Your task to perform on an android device: What's the weather going to be tomorrow? Image 0: 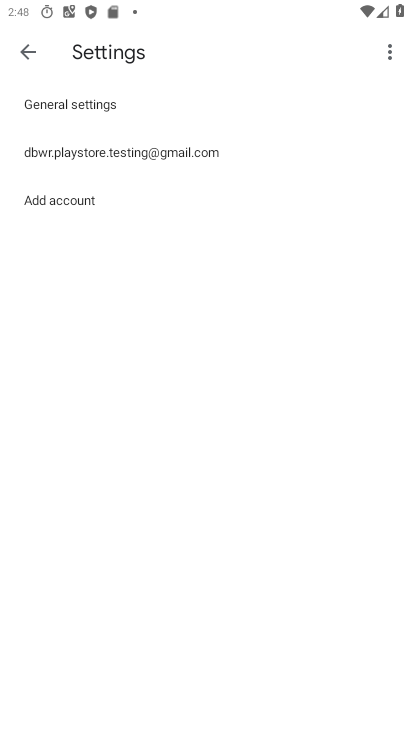
Step 0: press home button
Your task to perform on an android device: What's the weather going to be tomorrow? Image 1: 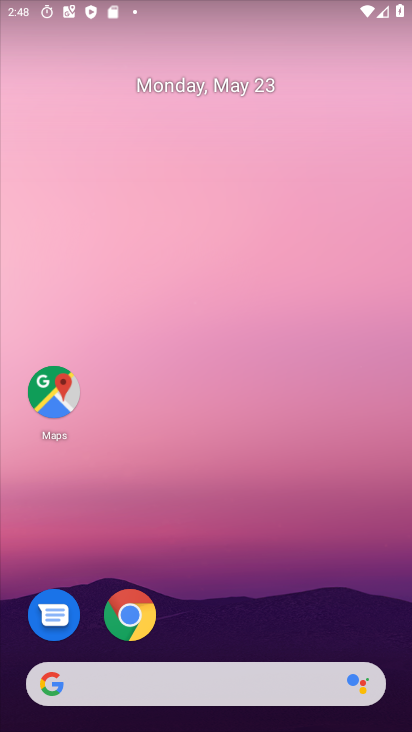
Step 1: click (145, 682)
Your task to perform on an android device: What's the weather going to be tomorrow? Image 2: 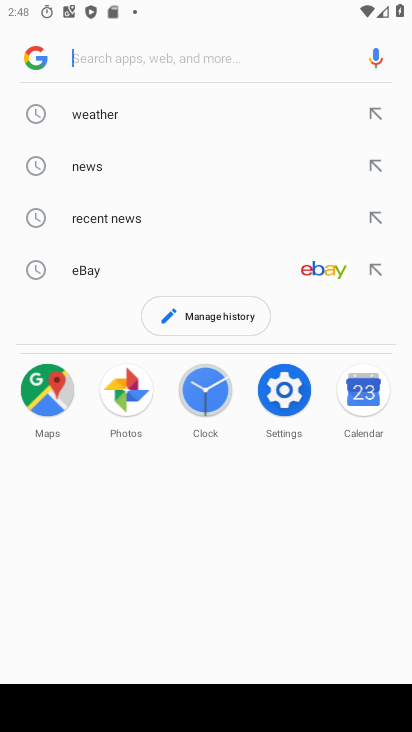
Step 2: click (98, 121)
Your task to perform on an android device: What's the weather going to be tomorrow? Image 3: 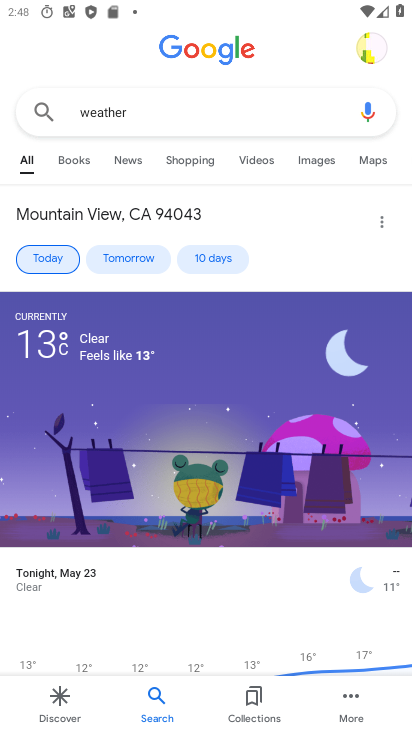
Step 3: click (124, 262)
Your task to perform on an android device: What's the weather going to be tomorrow? Image 4: 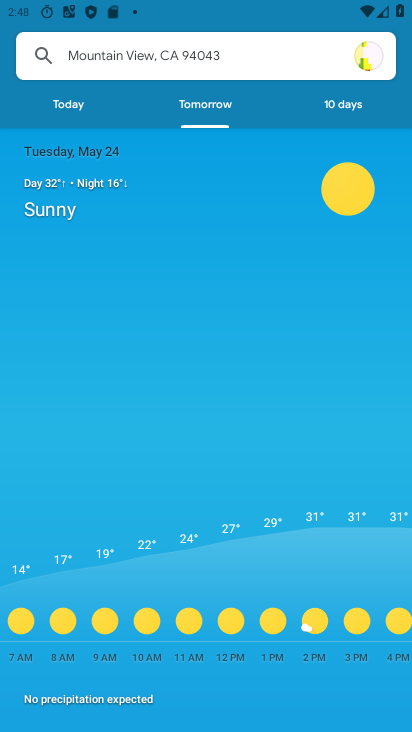
Step 4: task complete